Your task to perform on an android device: check android version Image 0: 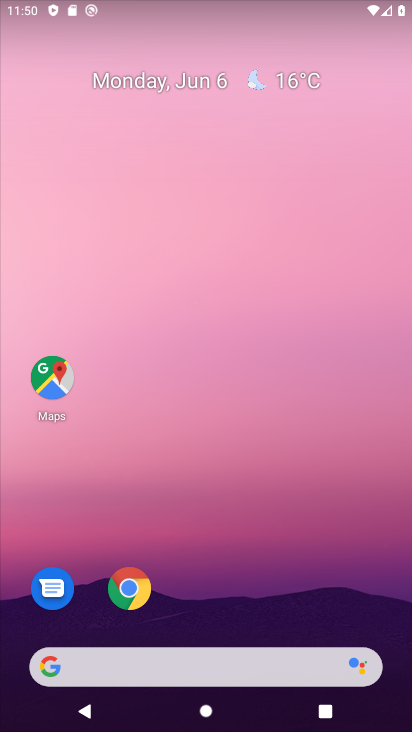
Step 0: drag from (305, 626) to (145, 18)
Your task to perform on an android device: check android version Image 1: 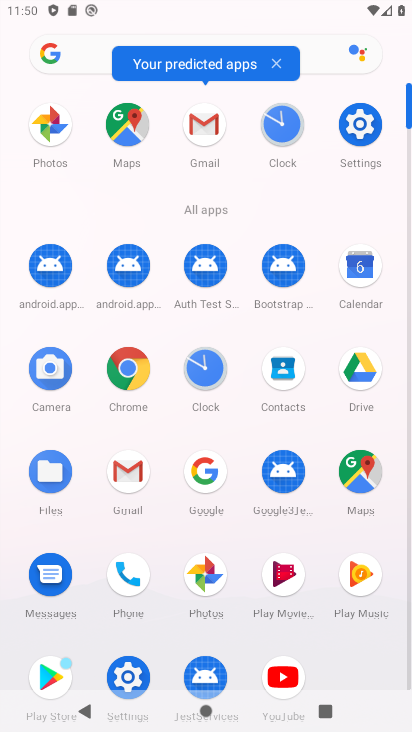
Step 1: click (348, 122)
Your task to perform on an android device: check android version Image 2: 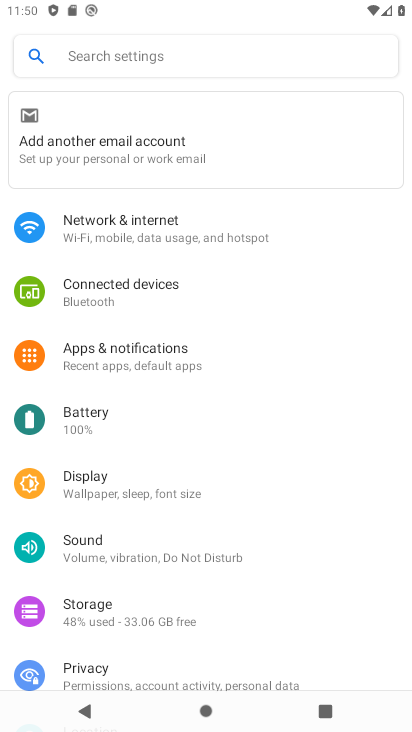
Step 2: drag from (215, 612) to (157, 30)
Your task to perform on an android device: check android version Image 3: 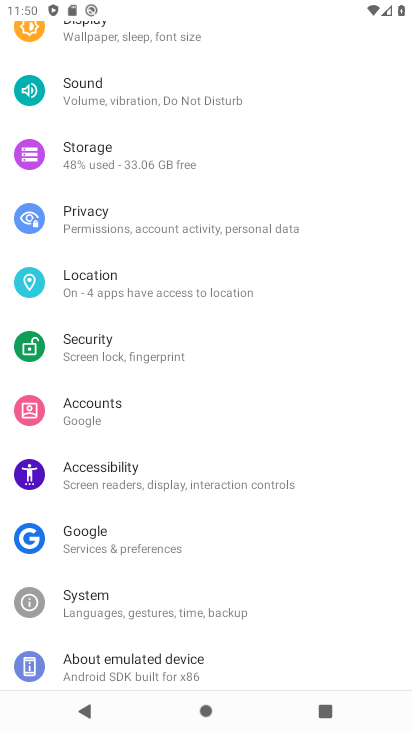
Step 3: click (158, 675)
Your task to perform on an android device: check android version Image 4: 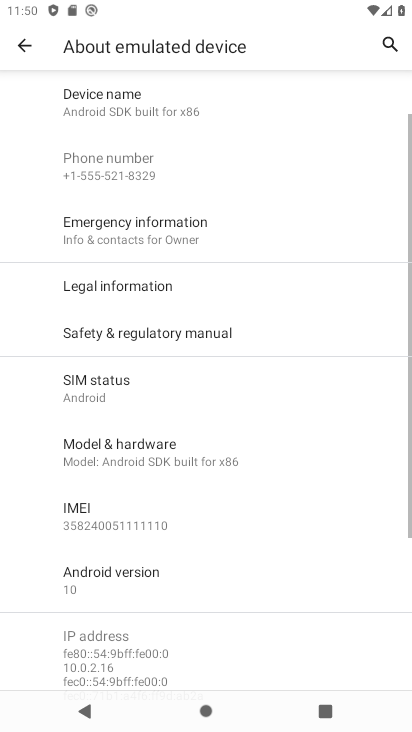
Step 4: click (261, 561)
Your task to perform on an android device: check android version Image 5: 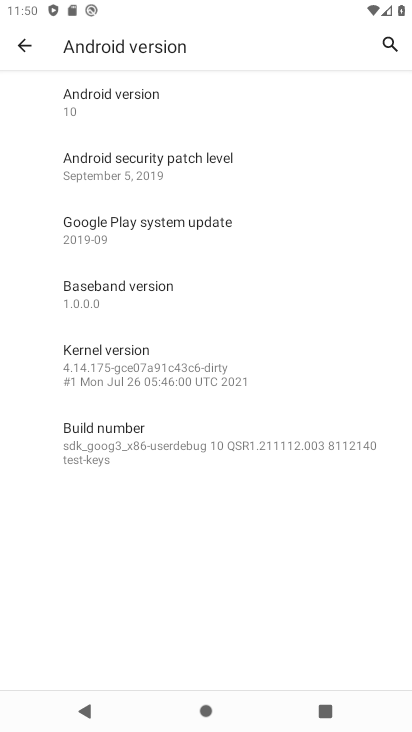
Step 5: task complete